Your task to perform on an android device: snooze an email in the gmail app Image 0: 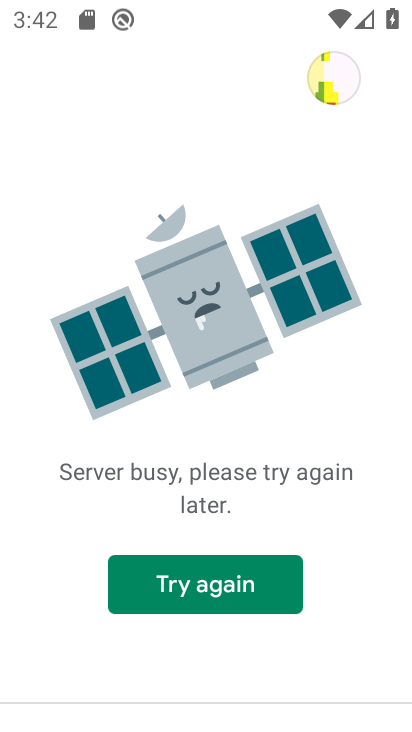
Step 0: press home button
Your task to perform on an android device: snooze an email in the gmail app Image 1: 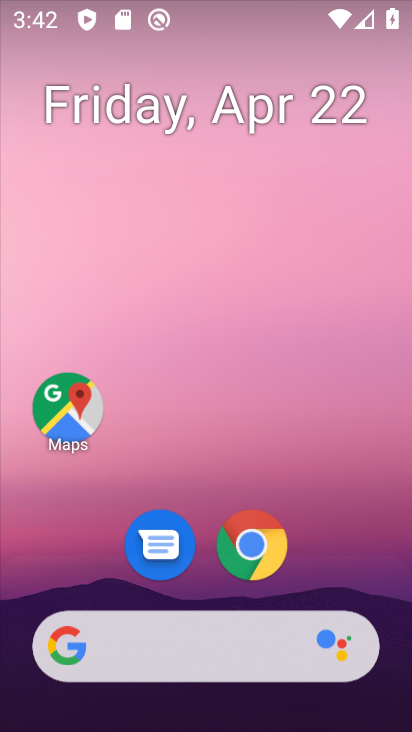
Step 1: drag from (249, 604) to (236, 310)
Your task to perform on an android device: snooze an email in the gmail app Image 2: 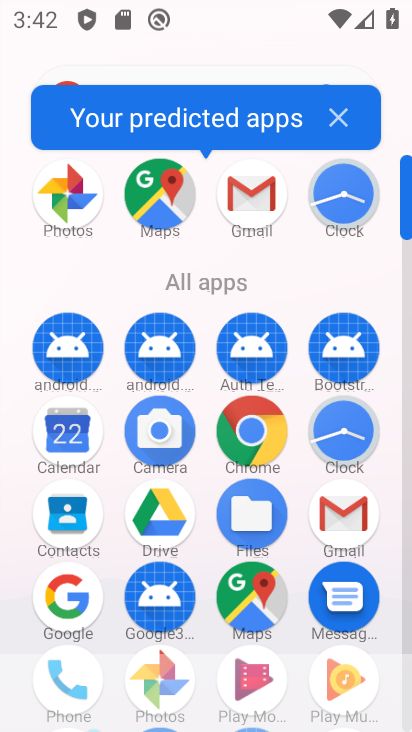
Step 2: click (349, 521)
Your task to perform on an android device: snooze an email in the gmail app Image 3: 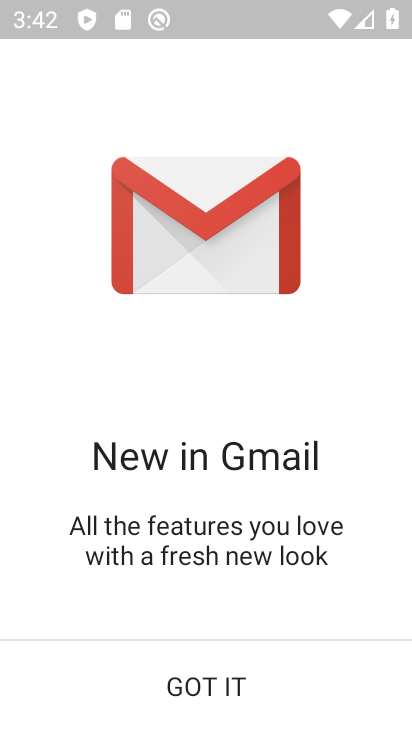
Step 3: click (218, 700)
Your task to perform on an android device: snooze an email in the gmail app Image 4: 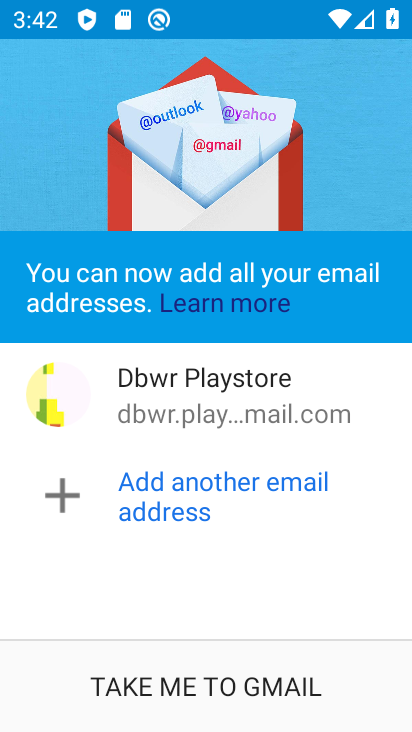
Step 4: click (218, 692)
Your task to perform on an android device: snooze an email in the gmail app Image 5: 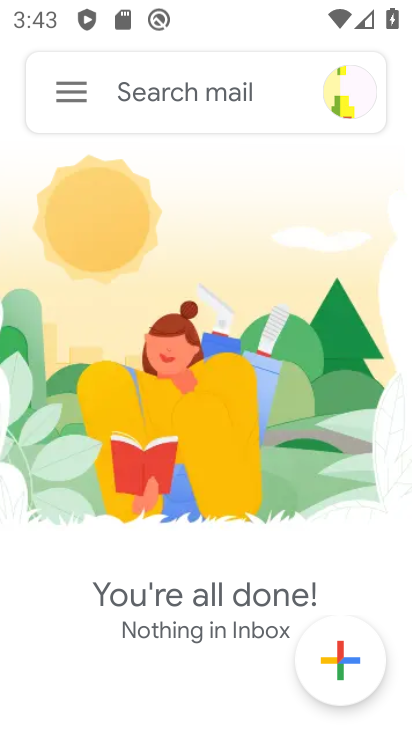
Step 5: click (71, 92)
Your task to perform on an android device: snooze an email in the gmail app Image 6: 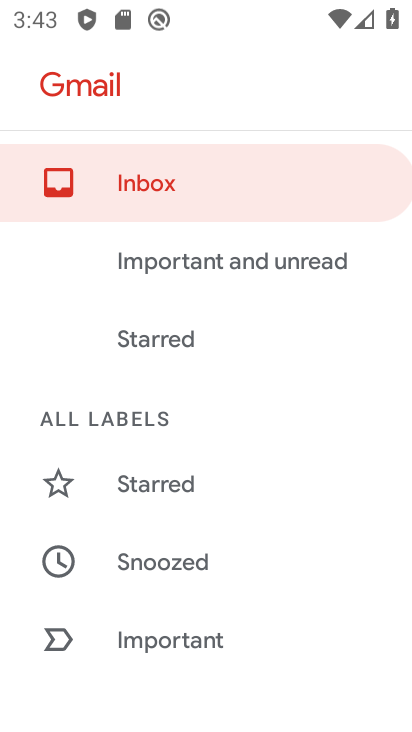
Step 6: drag from (202, 558) to (157, 381)
Your task to perform on an android device: snooze an email in the gmail app Image 7: 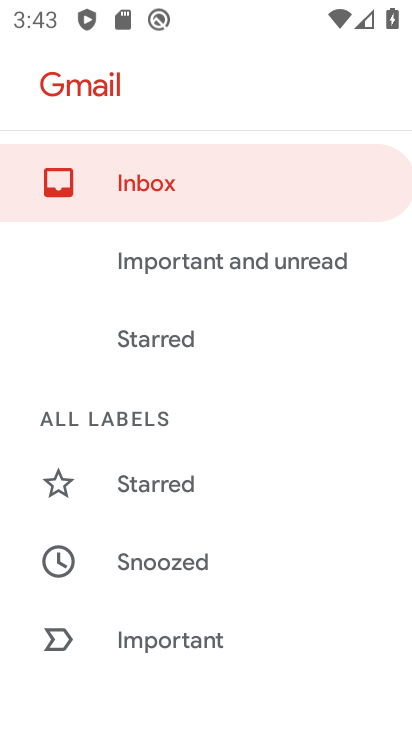
Step 7: drag from (185, 560) to (116, 181)
Your task to perform on an android device: snooze an email in the gmail app Image 8: 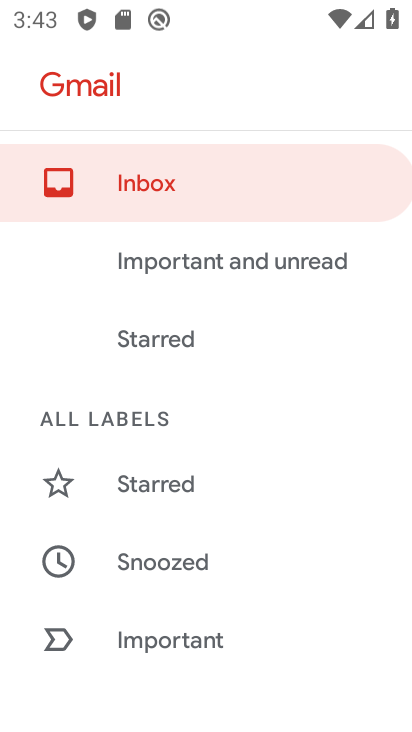
Step 8: drag from (104, 617) to (64, 114)
Your task to perform on an android device: snooze an email in the gmail app Image 9: 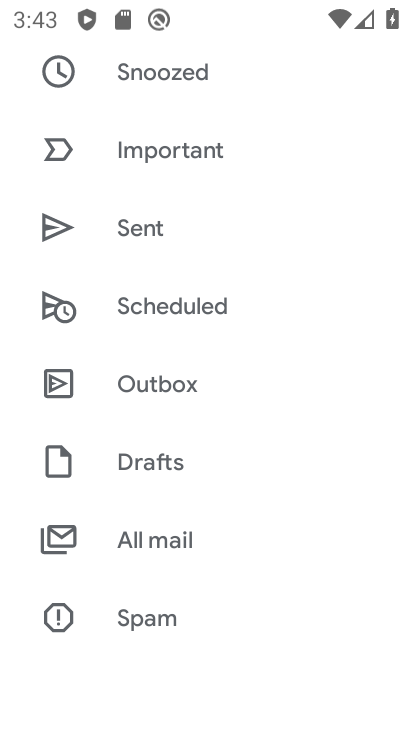
Step 9: click (167, 551)
Your task to perform on an android device: snooze an email in the gmail app Image 10: 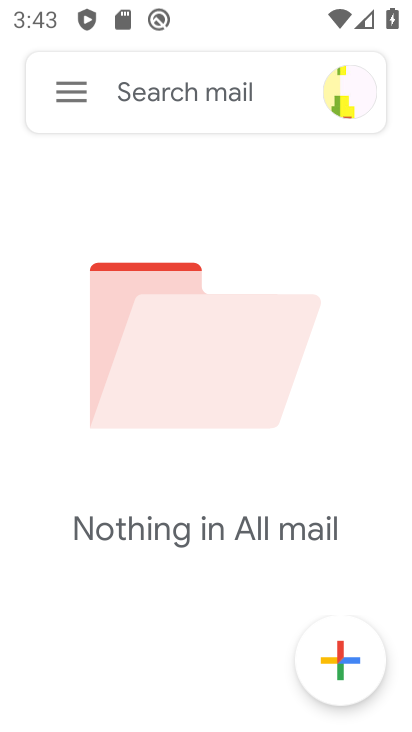
Step 10: task complete